Your task to perform on an android device: open app "DoorDash - Dasher" (install if not already installed), go to login, and select forgot password Image 0: 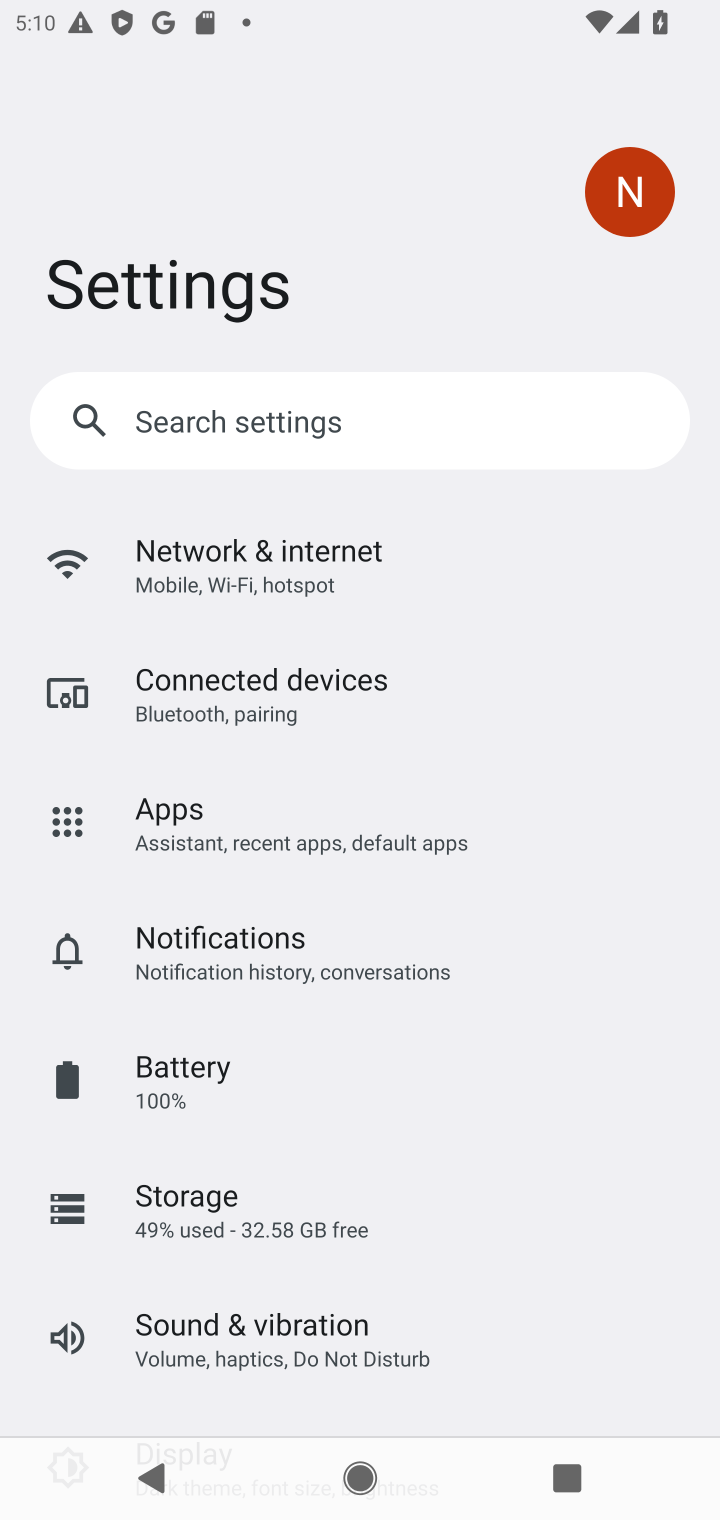
Step 0: press home button
Your task to perform on an android device: open app "DoorDash - Dasher" (install if not already installed), go to login, and select forgot password Image 1: 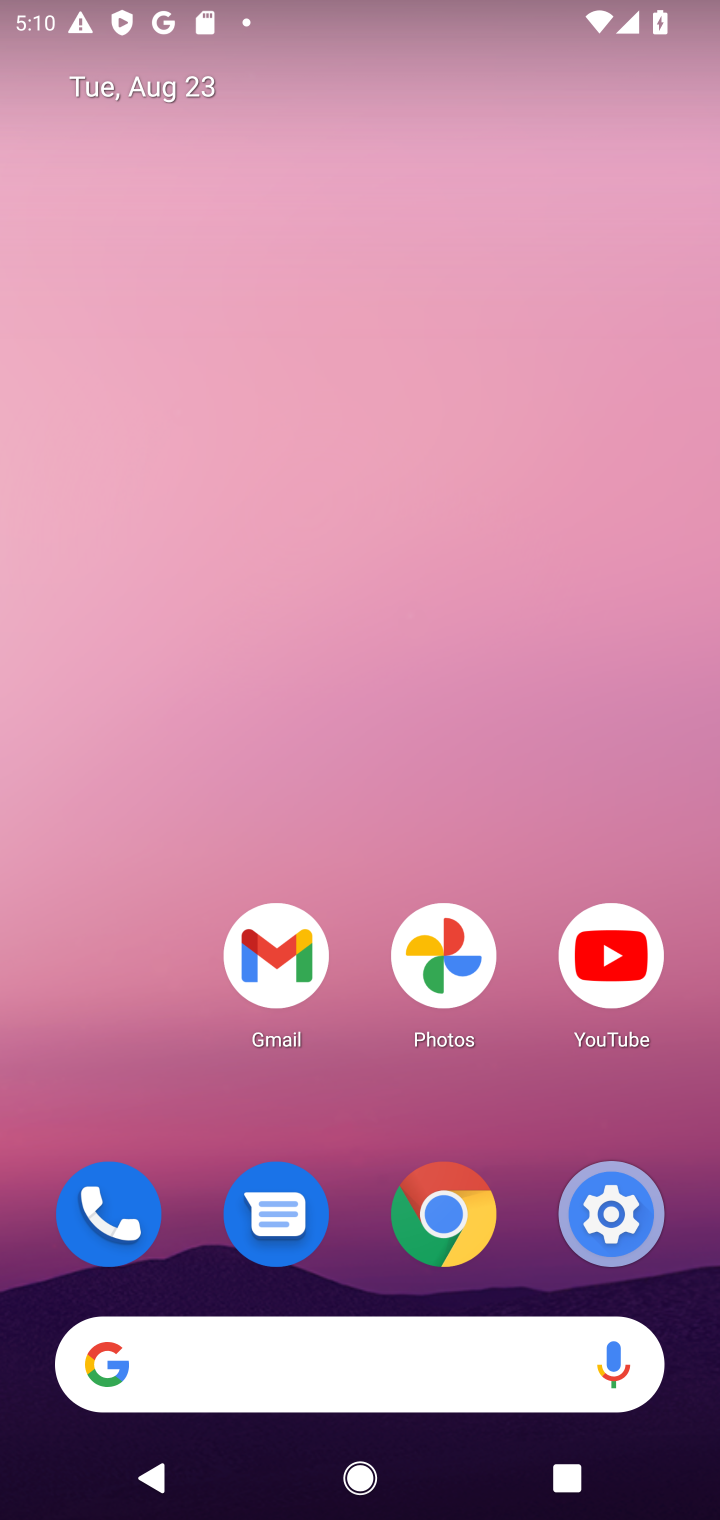
Step 1: drag from (368, 1284) to (343, 12)
Your task to perform on an android device: open app "DoorDash - Dasher" (install if not already installed), go to login, and select forgot password Image 2: 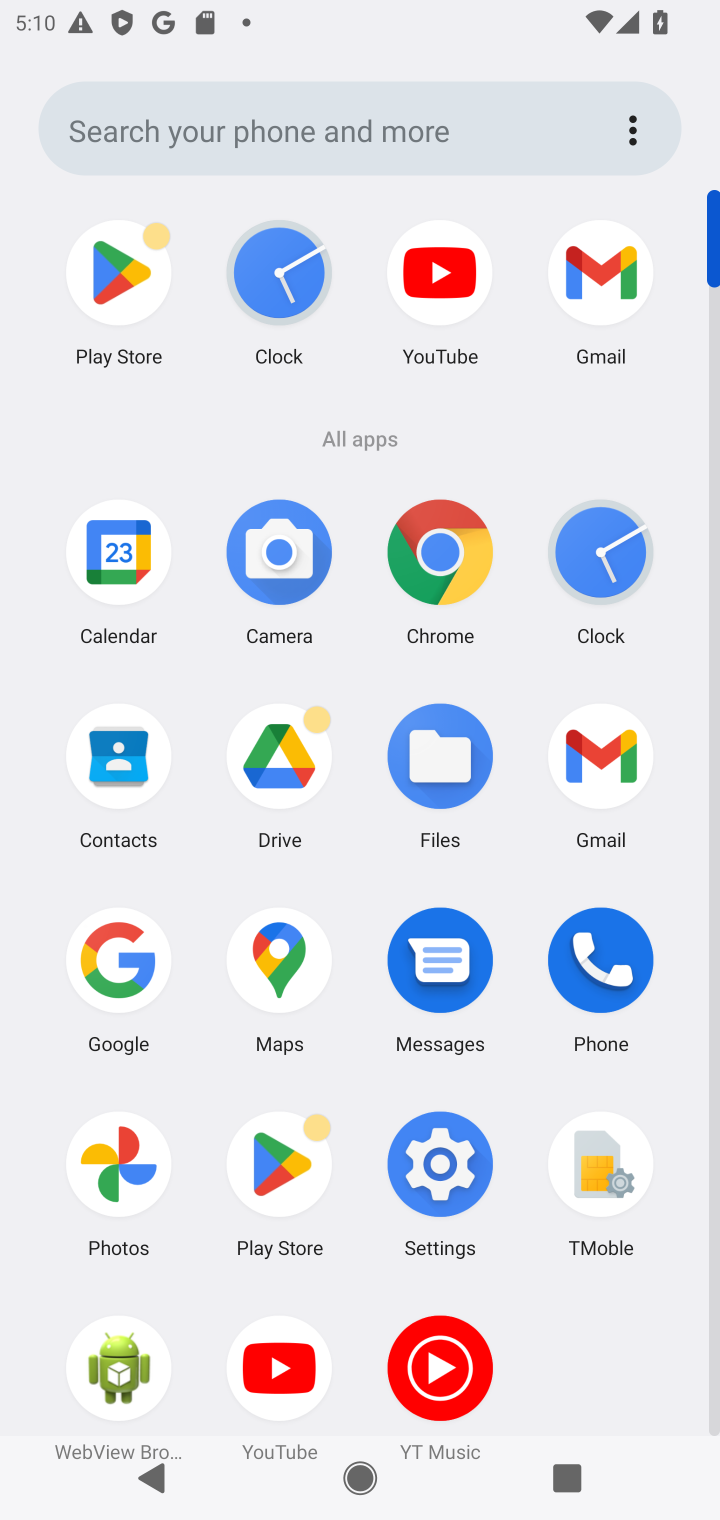
Step 2: click (267, 1193)
Your task to perform on an android device: open app "DoorDash - Dasher" (install if not already installed), go to login, and select forgot password Image 3: 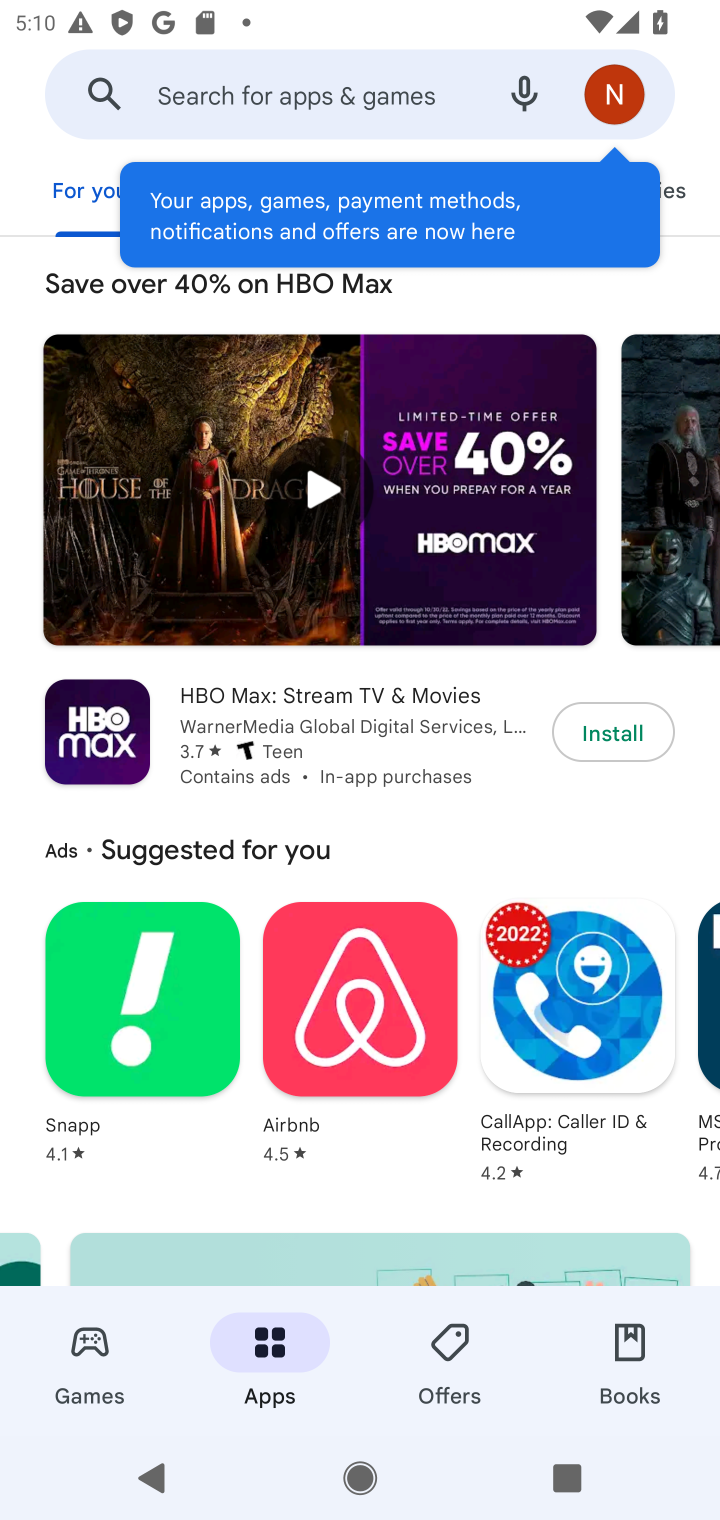
Step 3: click (397, 99)
Your task to perform on an android device: open app "DoorDash - Dasher" (install if not already installed), go to login, and select forgot password Image 4: 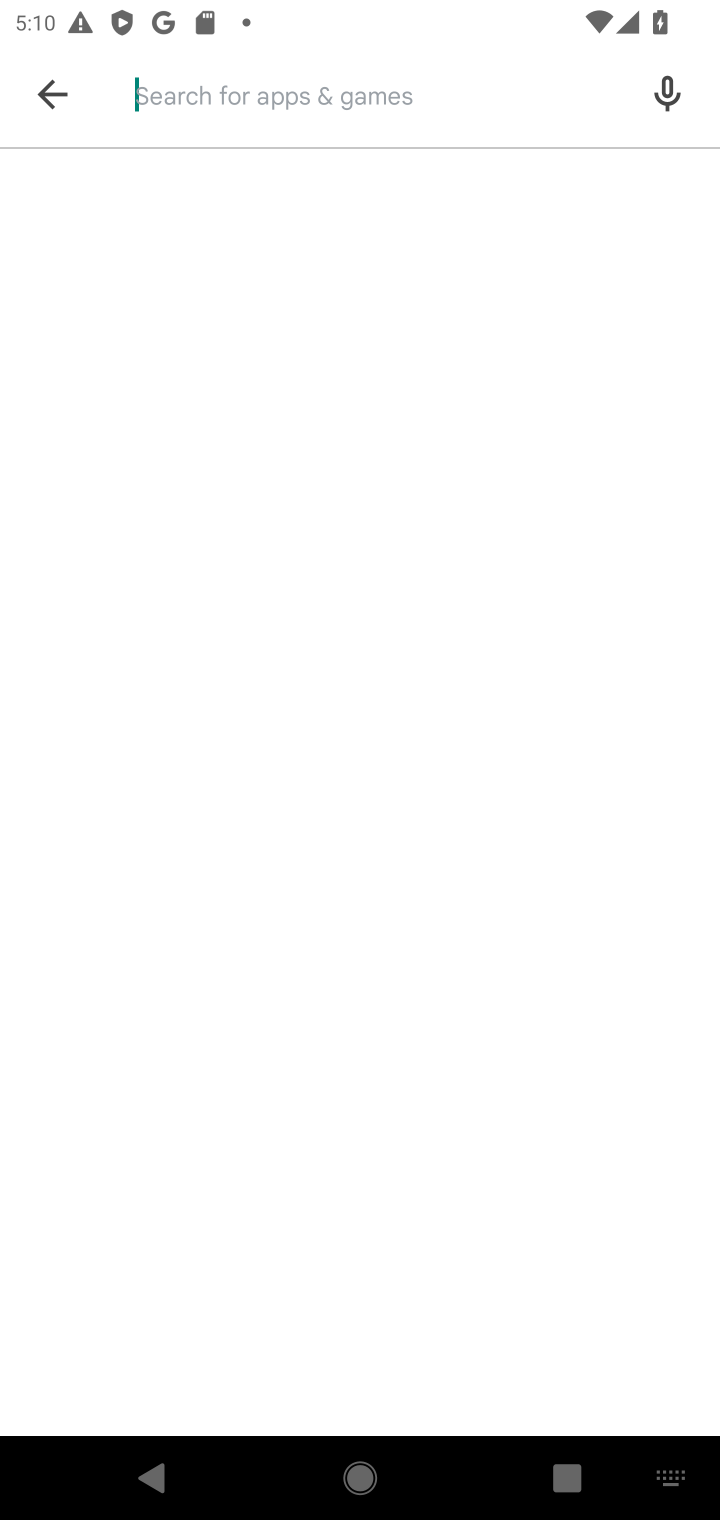
Step 4: type "DoorDash - Dasher"
Your task to perform on an android device: open app "DoorDash - Dasher" (install if not already installed), go to login, and select forgot password Image 5: 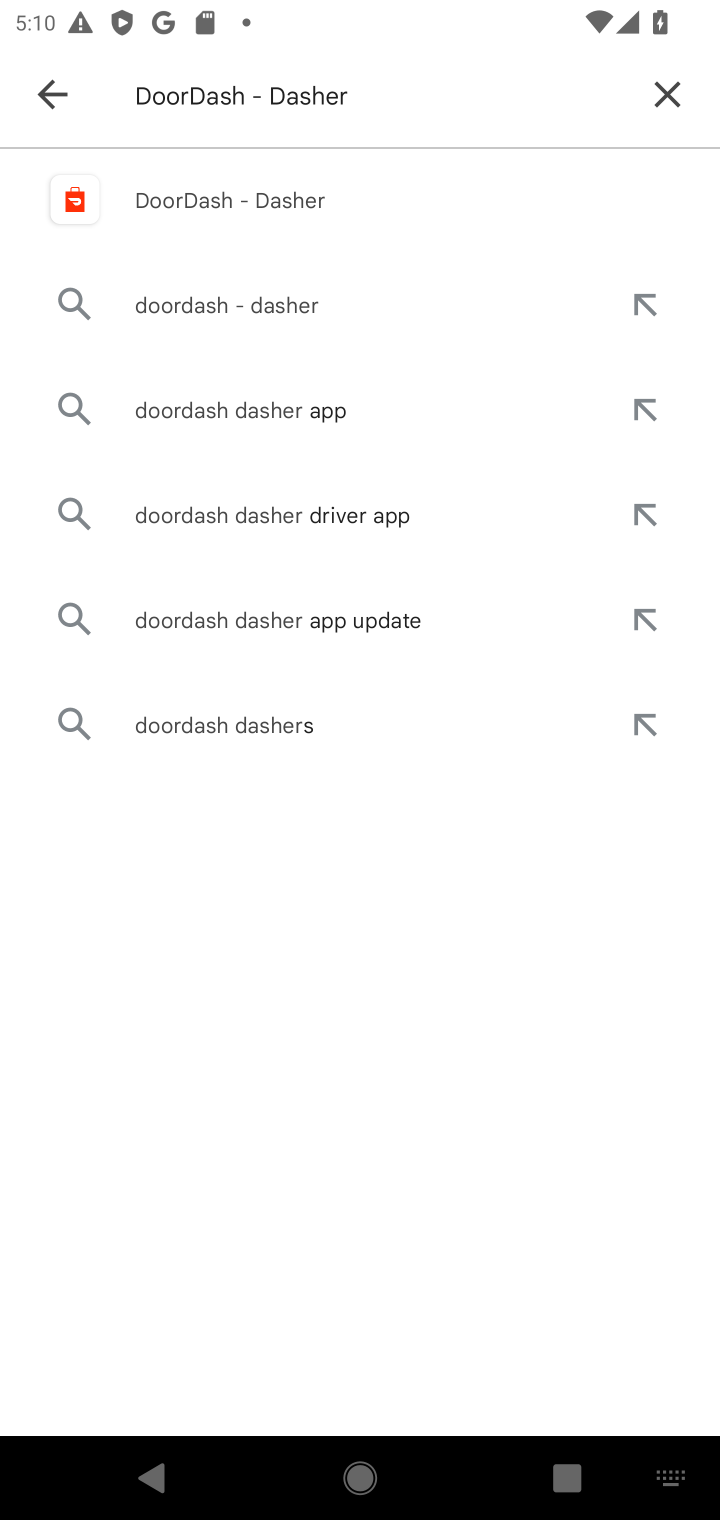
Step 5: click (227, 190)
Your task to perform on an android device: open app "DoorDash - Dasher" (install if not already installed), go to login, and select forgot password Image 6: 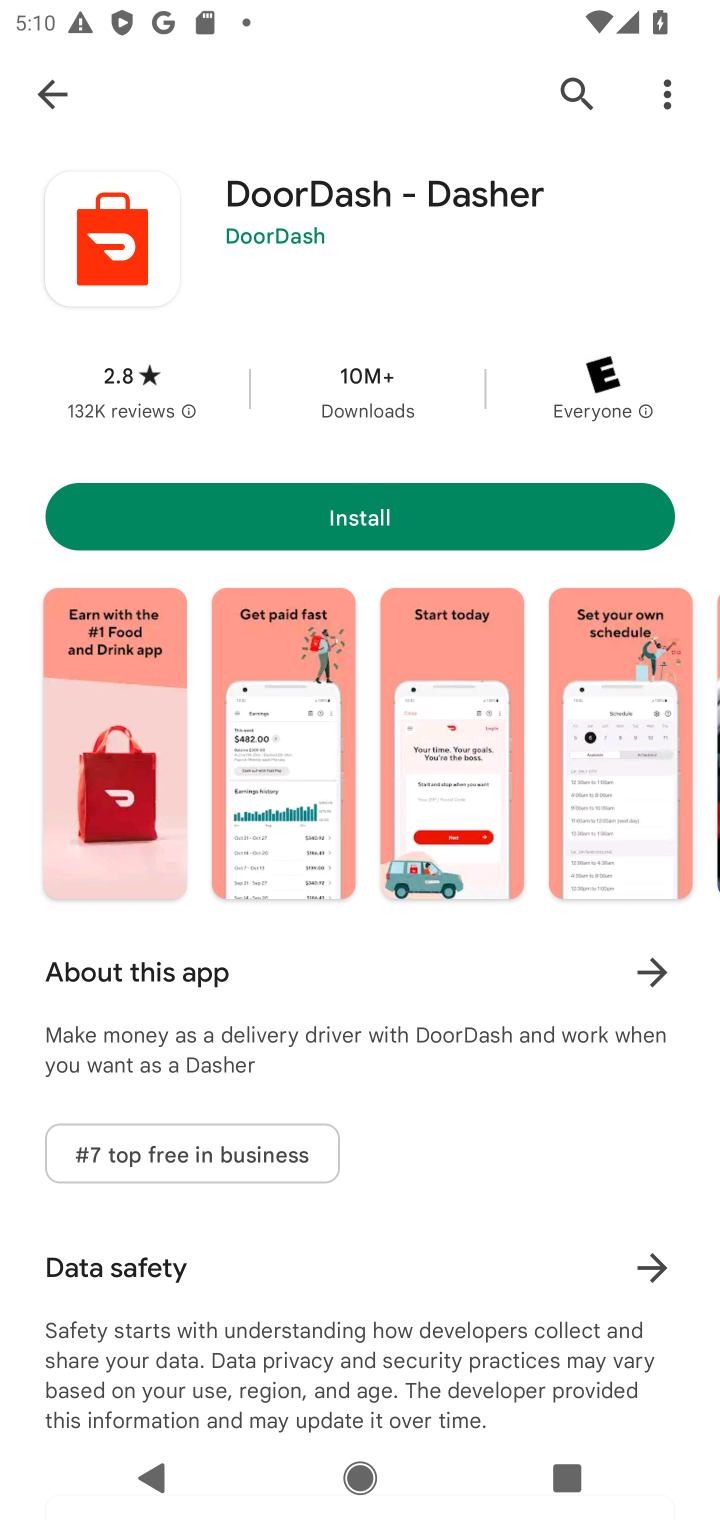
Step 6: click (378, 496)
Your task to perform on an android device: open app "DoorDash - Dasher" (install if not already installed), go to login, and select forgot password Image 7: 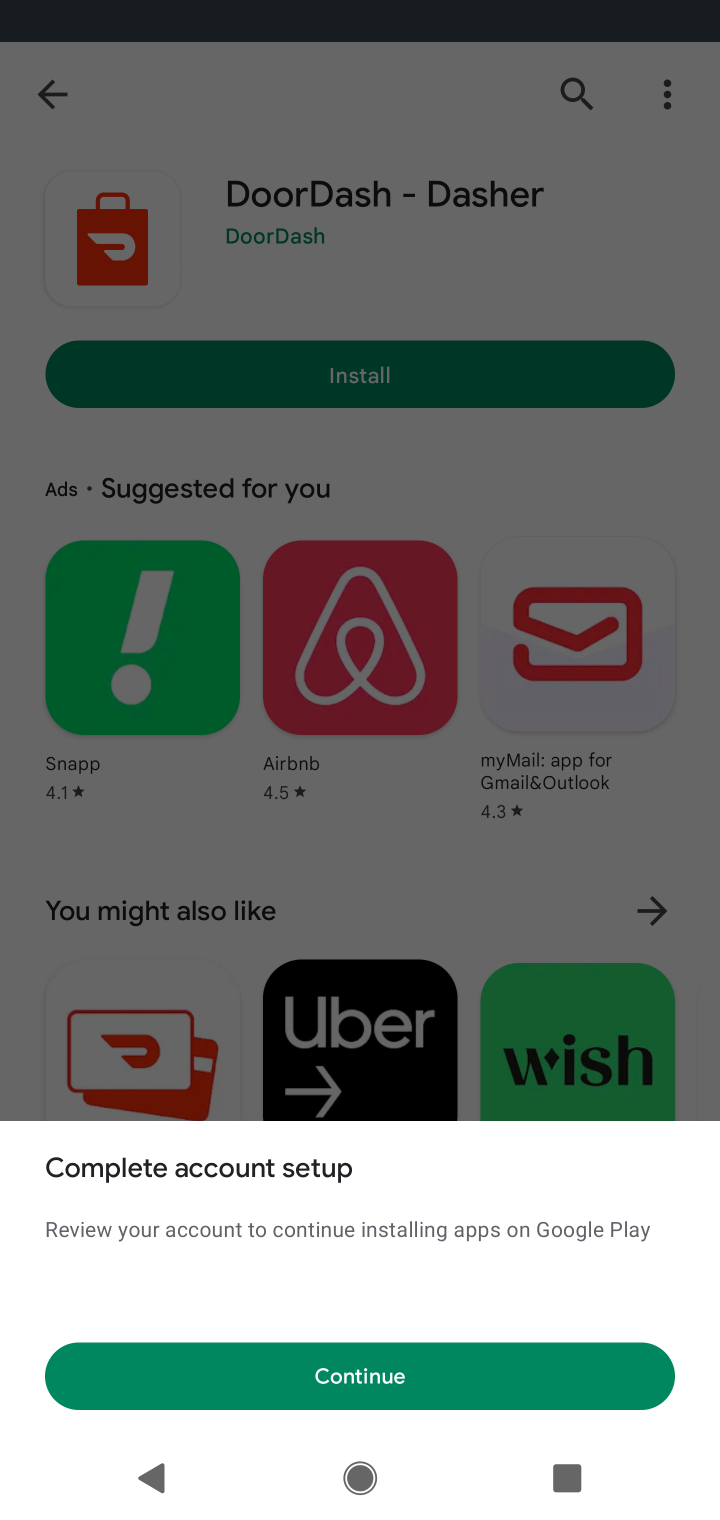
Step 7: click (370, 1393)
Your task to perform on an android device: open app "DoorDash - Dasher" (install if not already installed), go to login, and select forgot password Image 8: 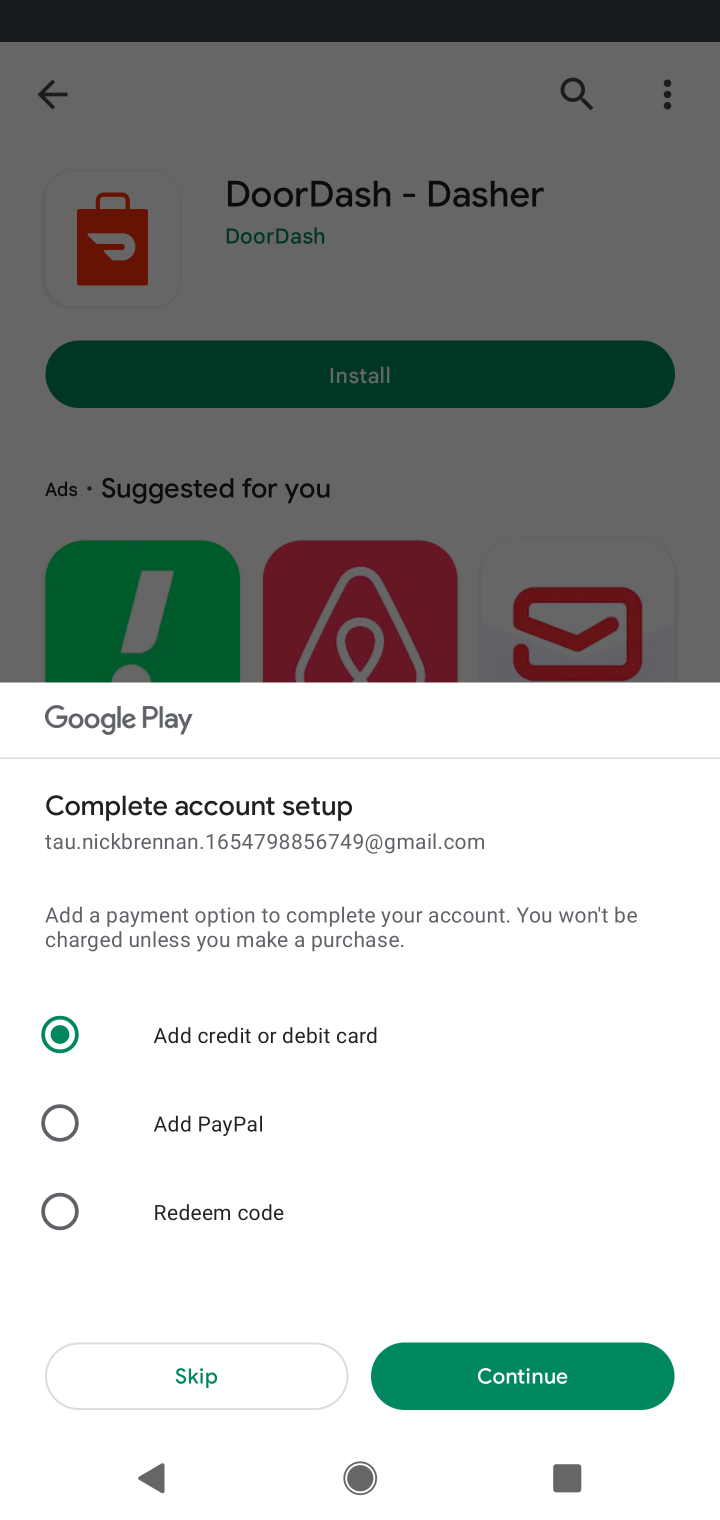
Step 8: click (241, 1382)
Your task to perform on an android device: open app "DoorDash - Dasher" (install if not already installed), go to login, and select forgot password Image 9: 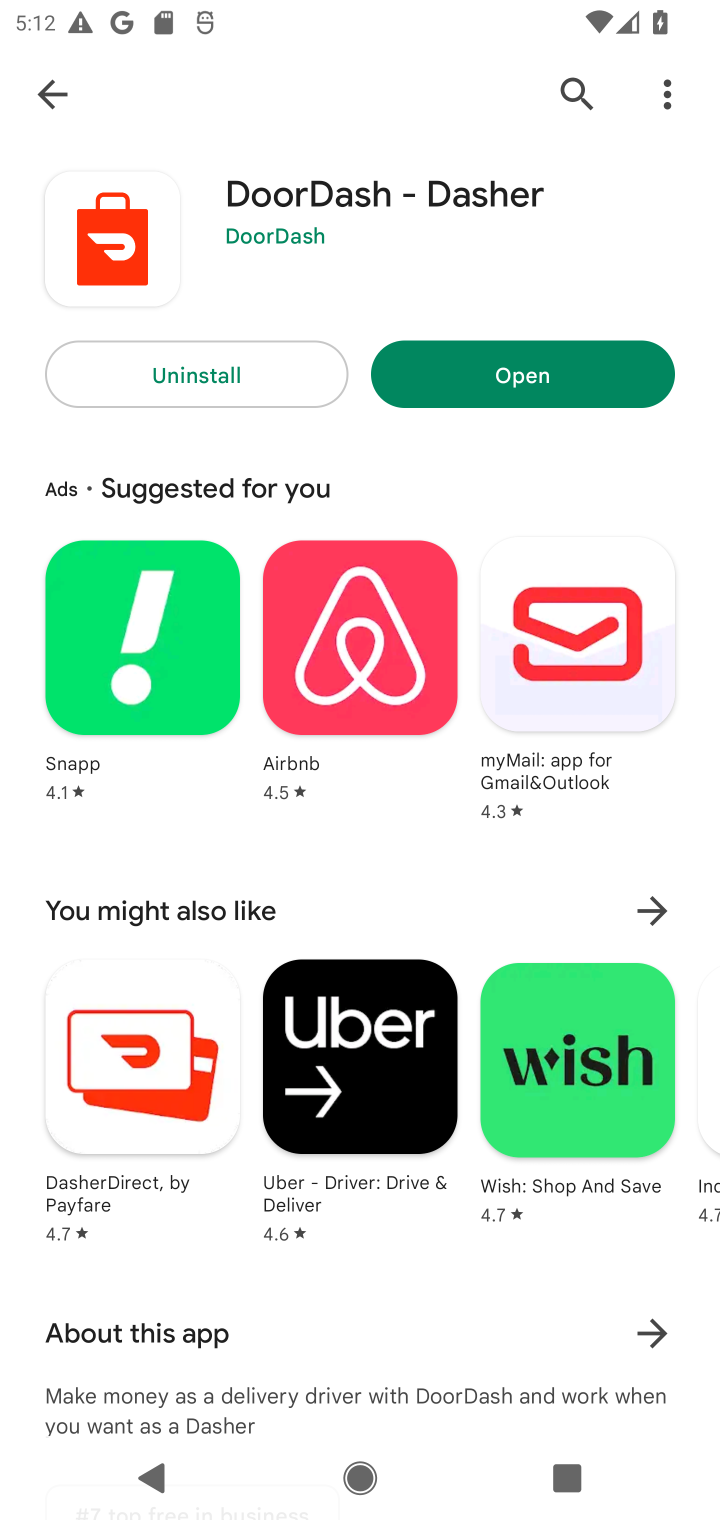
Step 9: click (587, 383)
Your task to perform on an android device: open app "DoorDash - Dasher" (install if not already installed), go to login, and select forgot password Image 10: 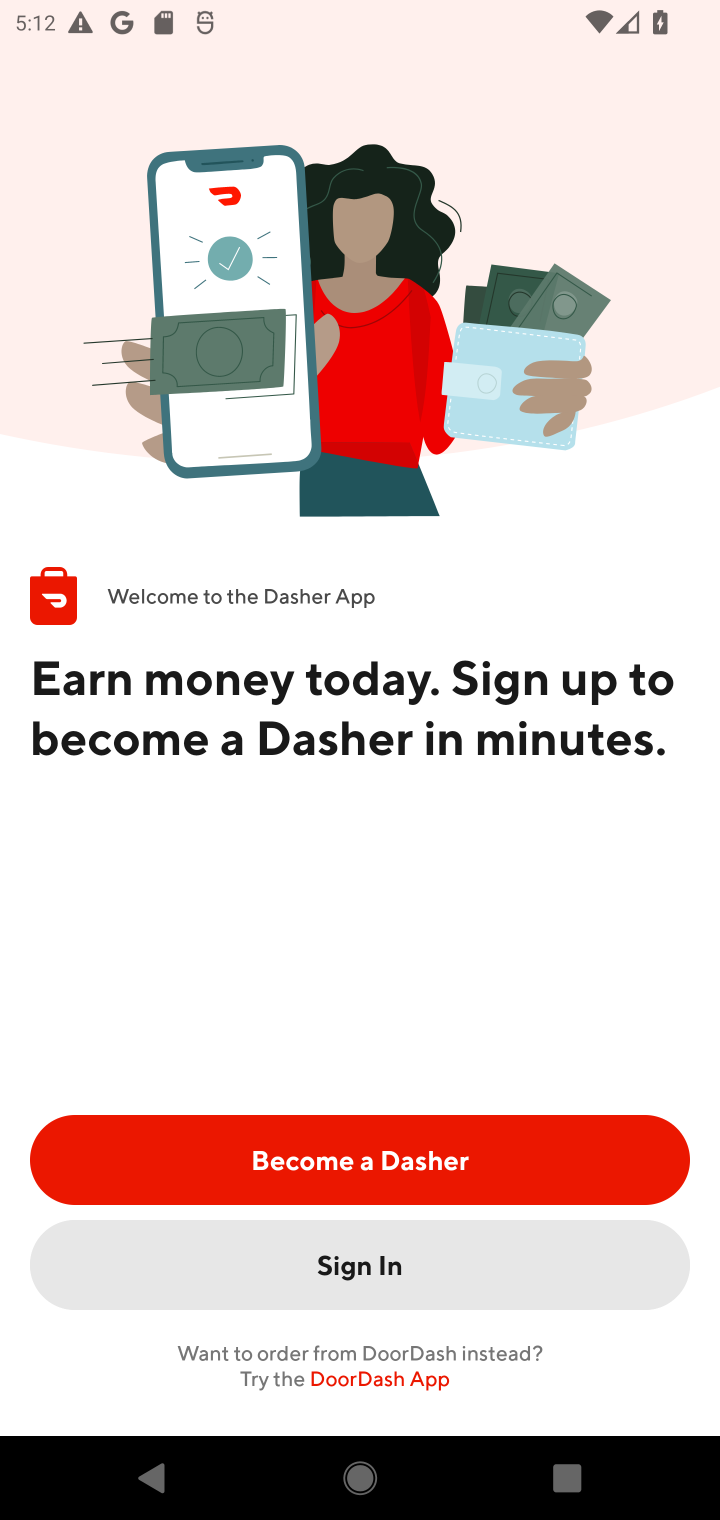
Step 10: task complete